Your task to perform on an android device: Set the phone to "Do not disturb". Image 0: 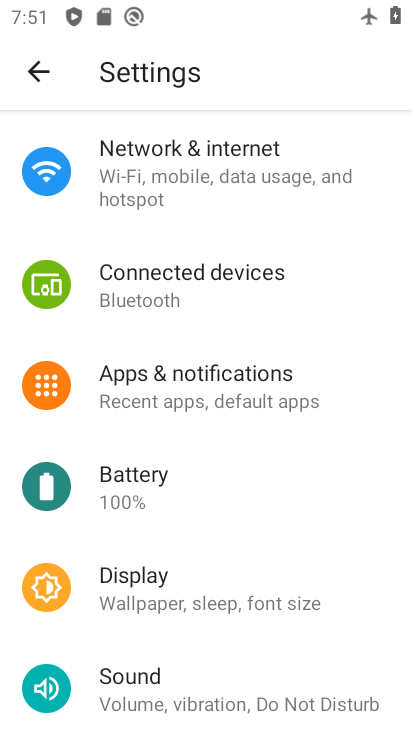
Step 0: click (168, 694)
Your task to perform on an android device: Set the phone to "Do not disturb". Image 1: 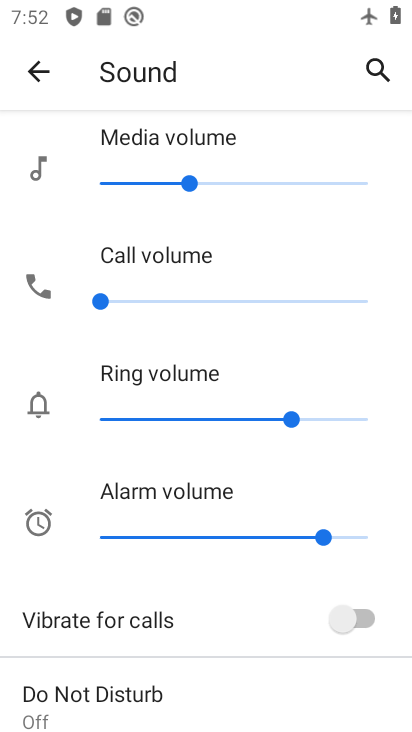
Step 1: drag from (245, 718) to (203, 211)
Your task to perform on an android device: Set the phone to "Do not disturb". Image 2: 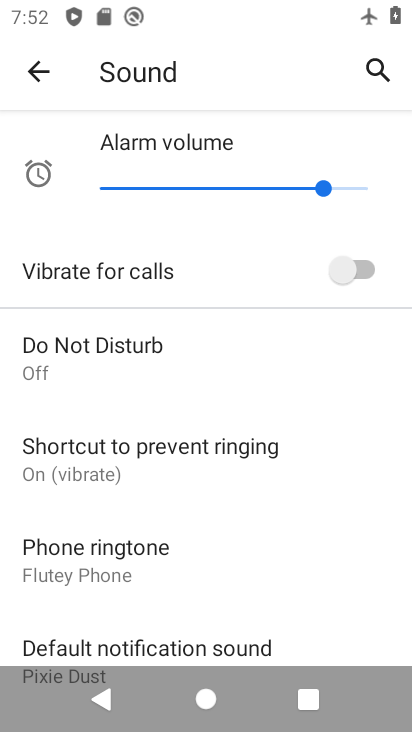
Step 2: click (119, 359)
Your task to perform on an android device: Set the phone to "Do not disturb". Image 3: 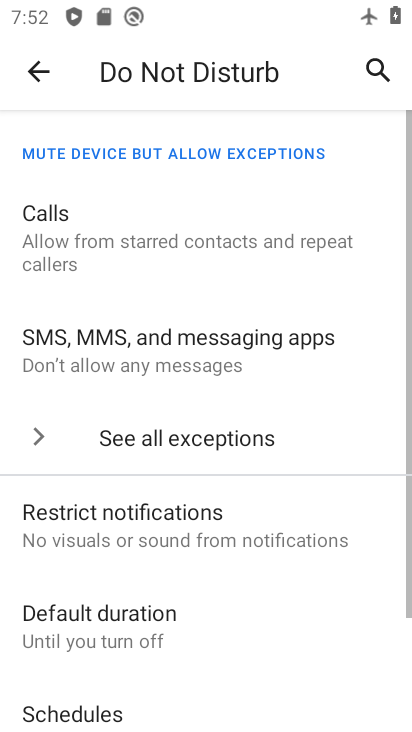
Step 3: drag from (235, 666) to (234, 198)
Your task to perform on an android device: Set the phone to "Do not disturb". Image 4: 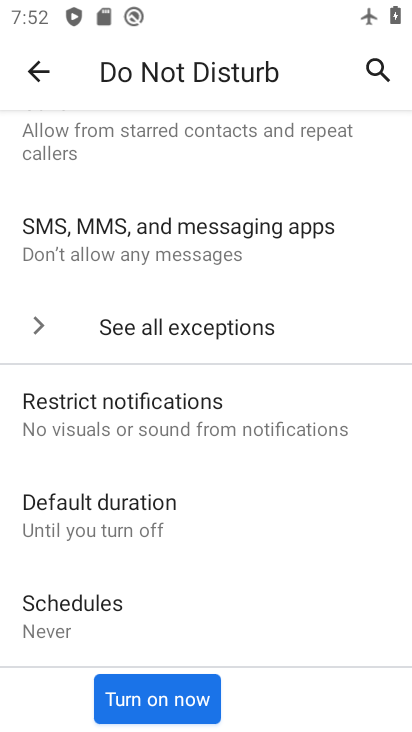
Step 4: click (175, 703)
Your task to perform on an android device: Set the phone to "Do not disturb". Image 5: 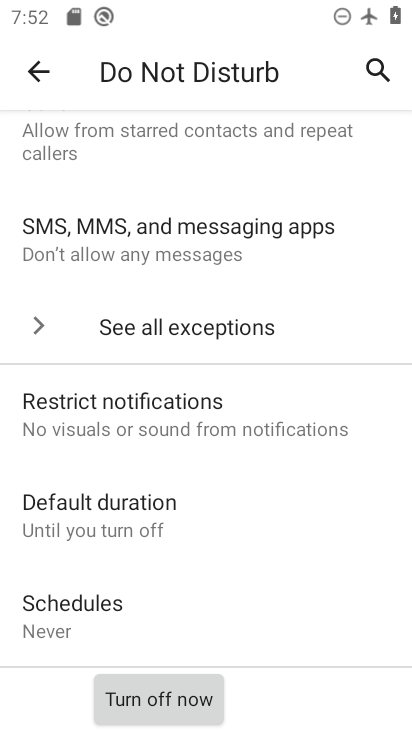
Step 5: task complete